Your task to perform on an android device: Show me some nice wallpapers for my computer Image 0: 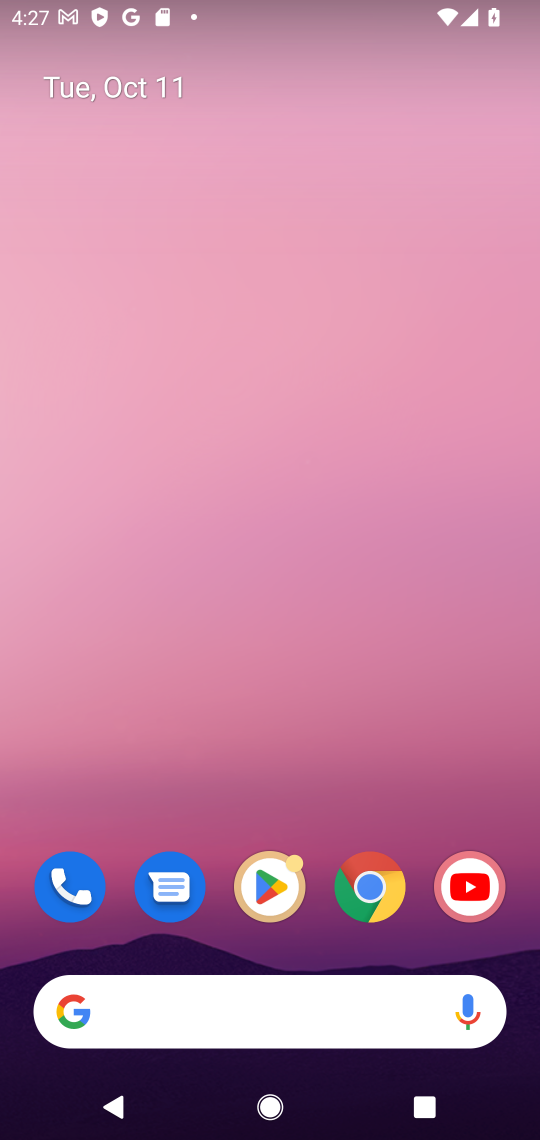
Step 0: click (285, 1007)
Your task to perform on an android device: Show me some nice wallpapers for my computer Image 1: 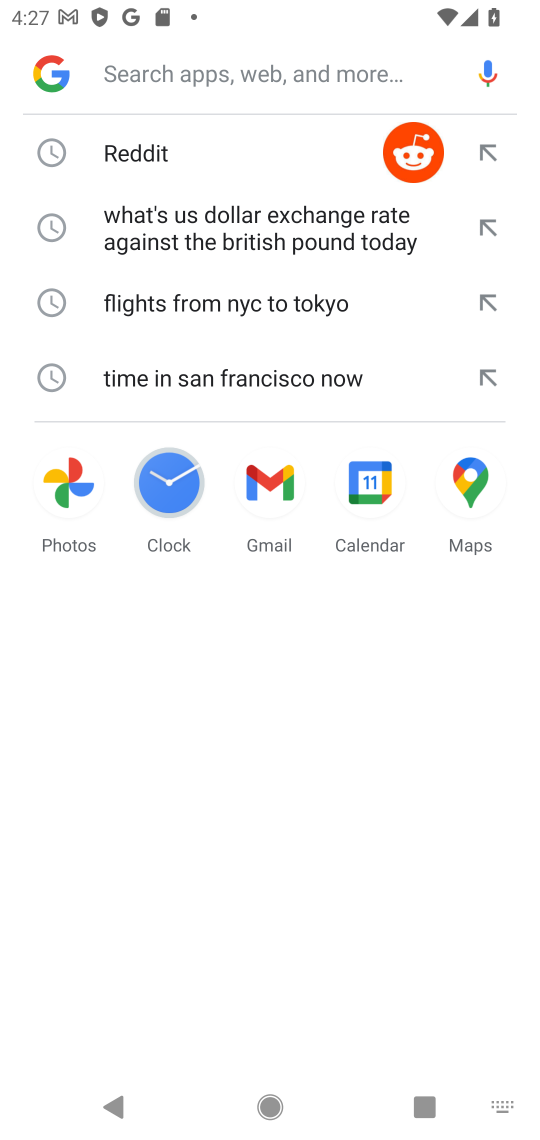
Step 1: type "some nice wallpapers for my computer"
Your task to perform on an android device: Show me some nice wallpapers for my computer Image 2: 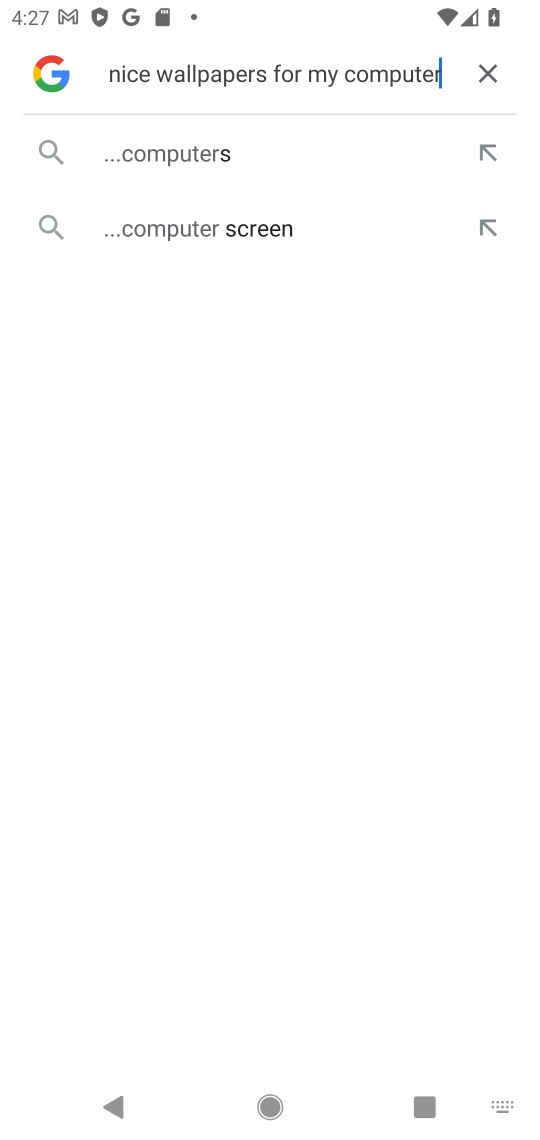
Step 2: press enter
Your task to perform on an android device: Show me some nice wallpapers for my computer Image 3: 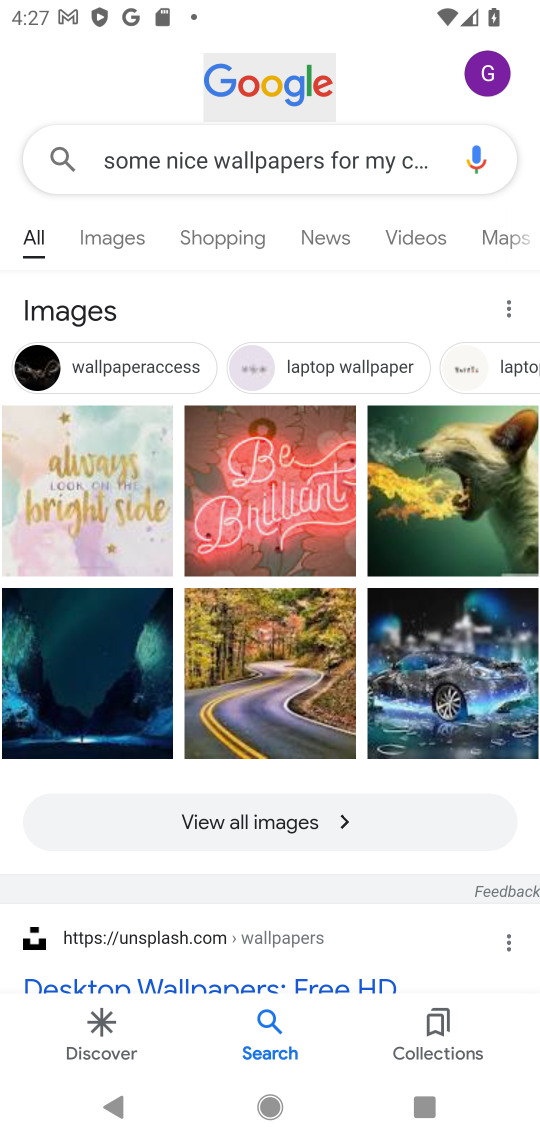
Step 3: click (302, 814)
Your task to perform on an android device: Show me some nice wallpapers for my computer Image 4: 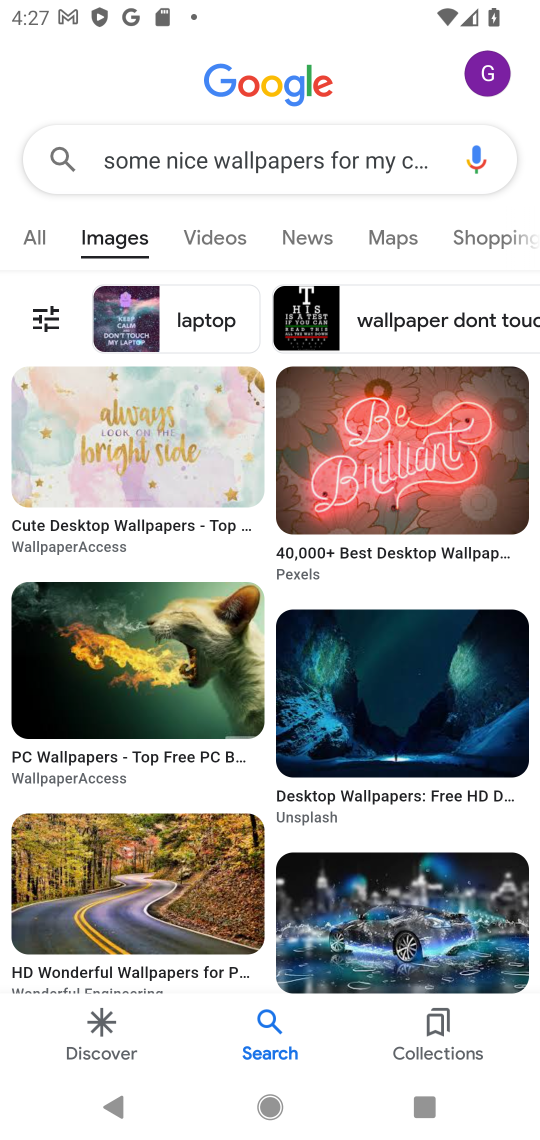
Step 4: drag from (270, 798) to (258, 328)
Your task to perform on an android device: Show me some nice wallpapers for my computer Image 5: 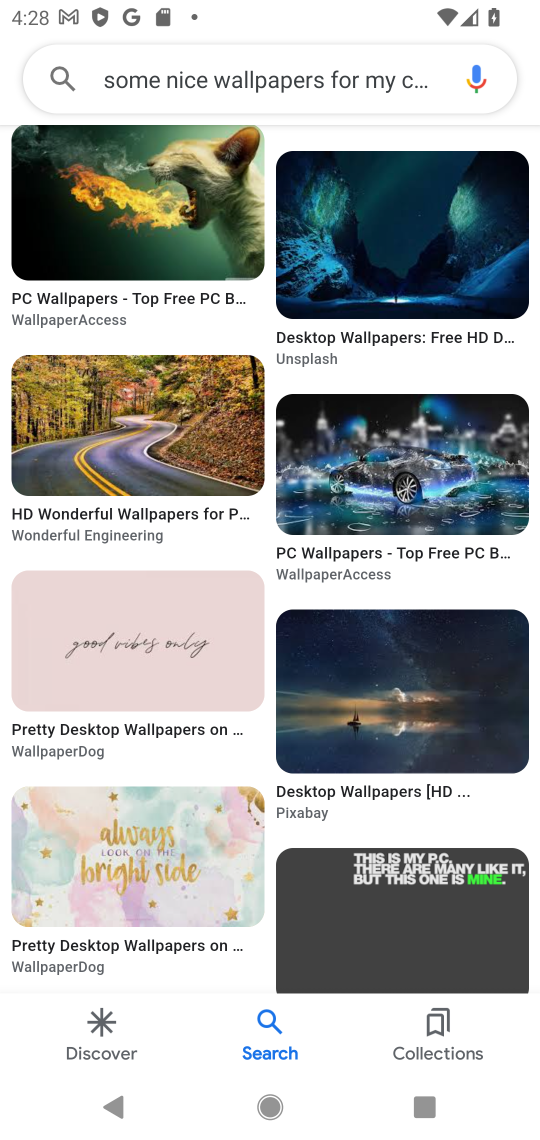
Step 5: drag from (273, 778) to (288, 339)
Your task to perform on an android device: Show me some nice wallpapers for my computer Image 6: 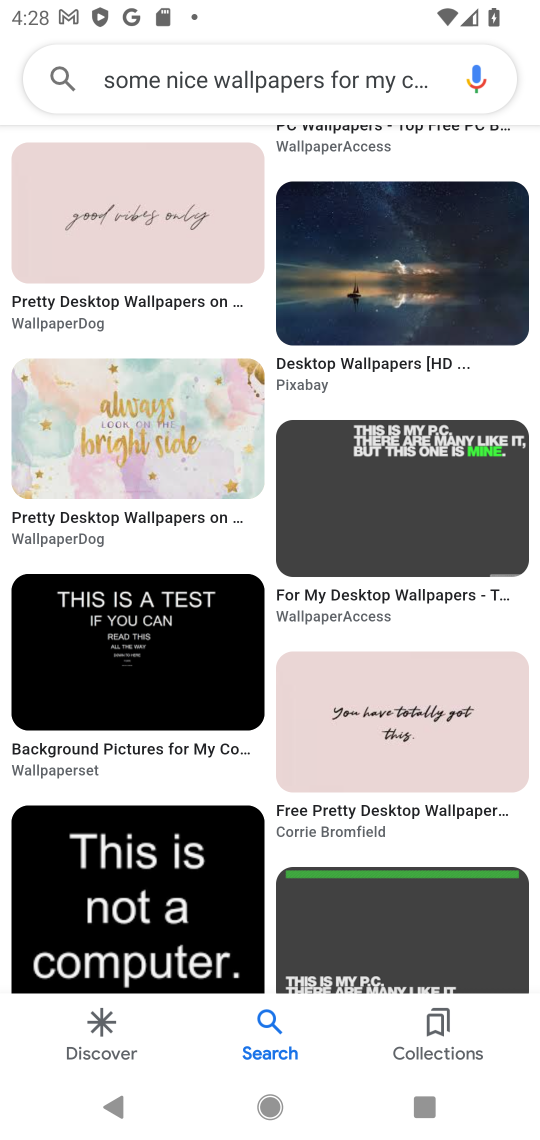
Step 6: drag from (281, 563) to (283, 784)
Your task to perform on an android device: Show me some nice wallpapers for my computer Image 7: 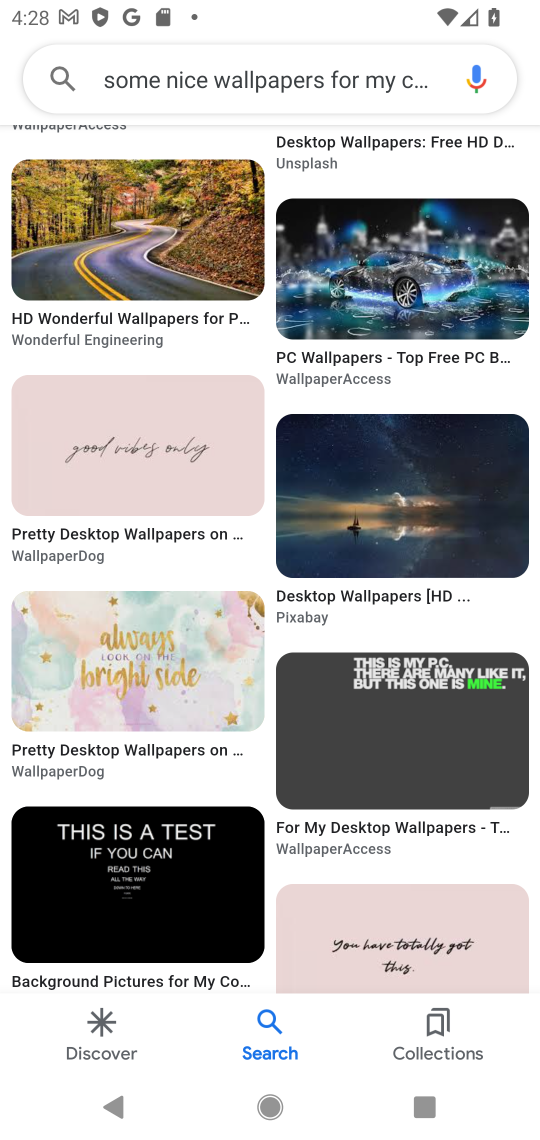
Step 7: drag from (260, 353) to (243, 867)
Your task to perform on an android device: Show me some nice wallpapers for my computer Image 8: 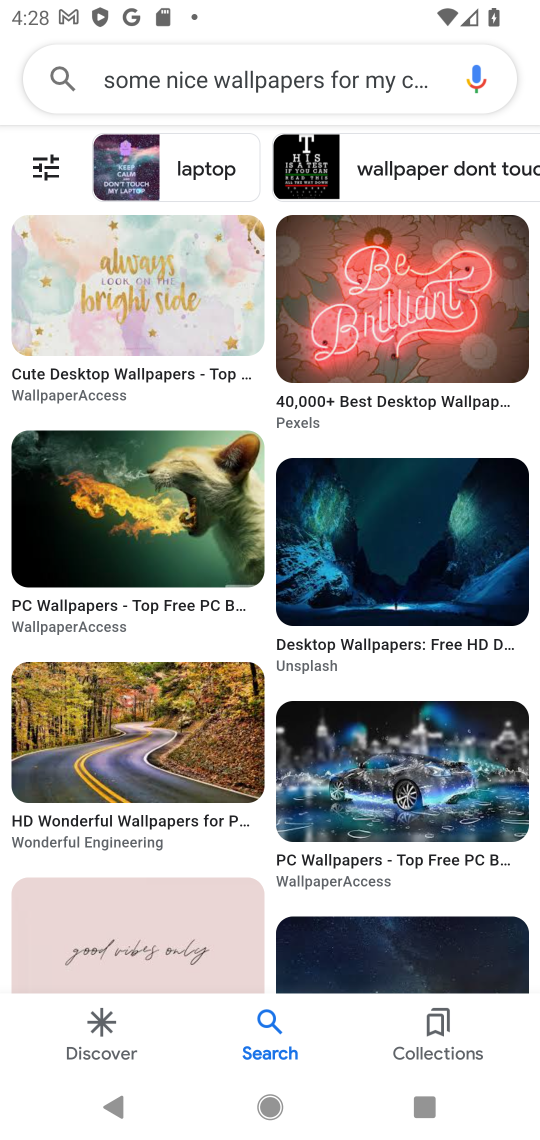
Step 8: drag from (259, 474) to (361, 1127)
Your task to perform on an android device: Show me some nice wallpapers for my computer Image 9: 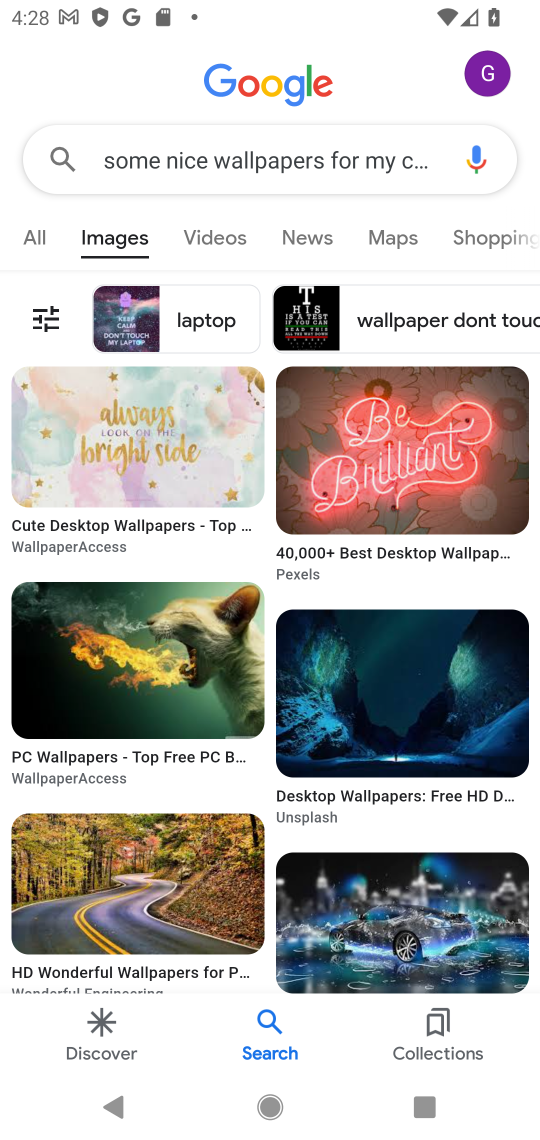
Step 9: click (36, 245)
Your task to perform on an android device: Show me some nice wallpapers for my computer Image 10: 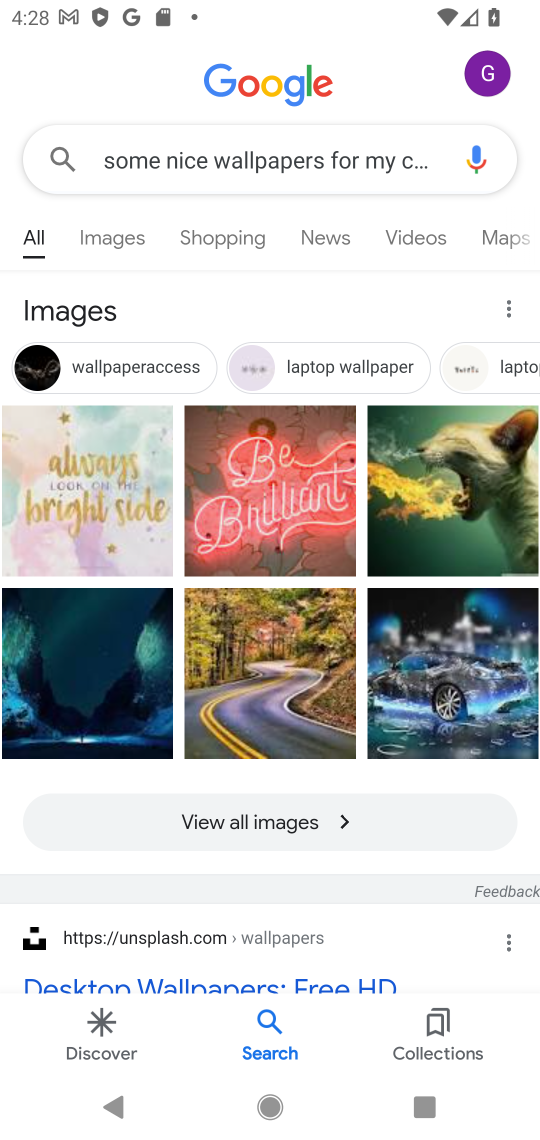
Step 10: drag from (295, 823) to (295, 627)
Your task to perform on an android device: Show me some nice wallpapers for my computer Image 11: 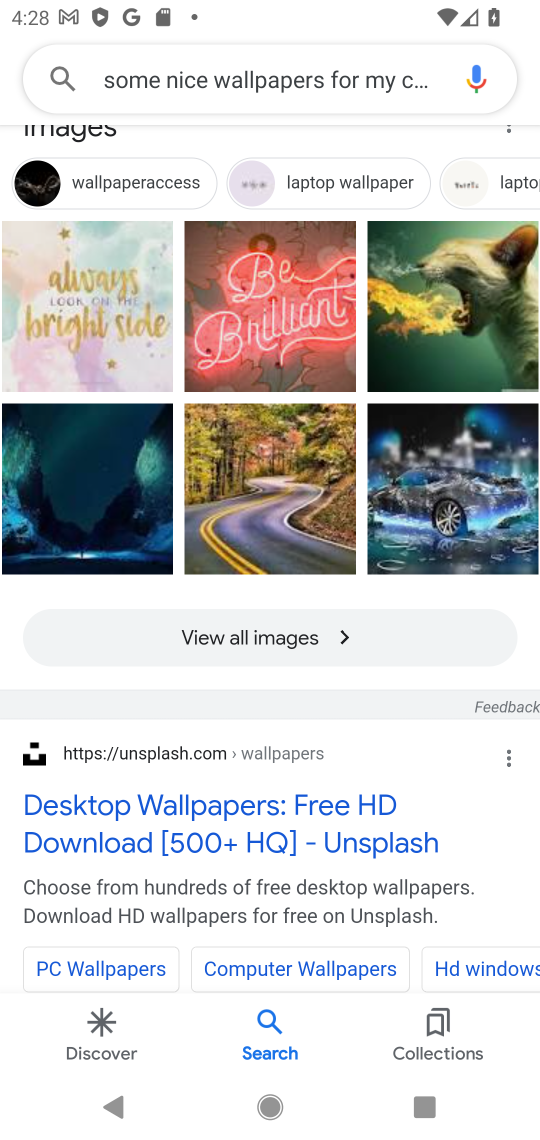
Step 11: click (180, 798)
Your task to perform on an android device: Show me some nice wallpapers for my computer Image 12: 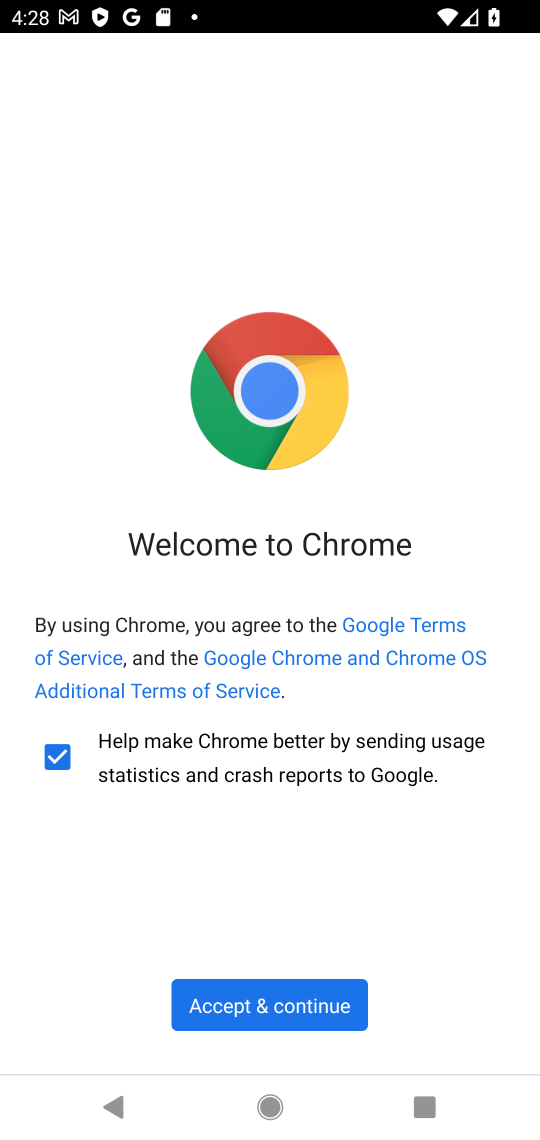
Step 12: click (283, 1016)
Your task to perform on an android device: Show me some nice wallpapers for my computer Image 13: 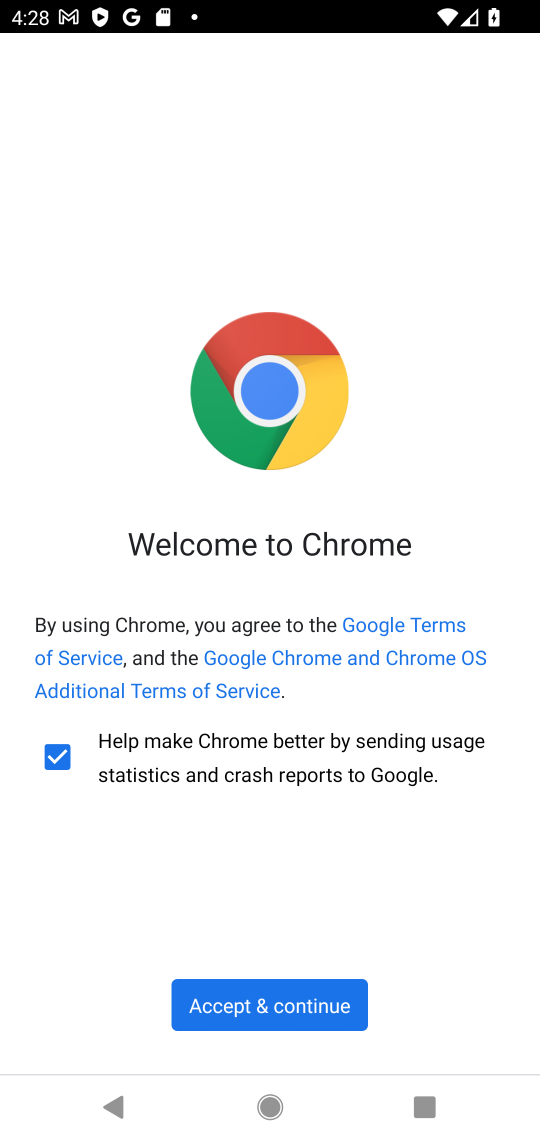
Step 13: click (283, 1016)
Your task to perform on an android device: Show me some nice wallpapers for my computer Image 14: 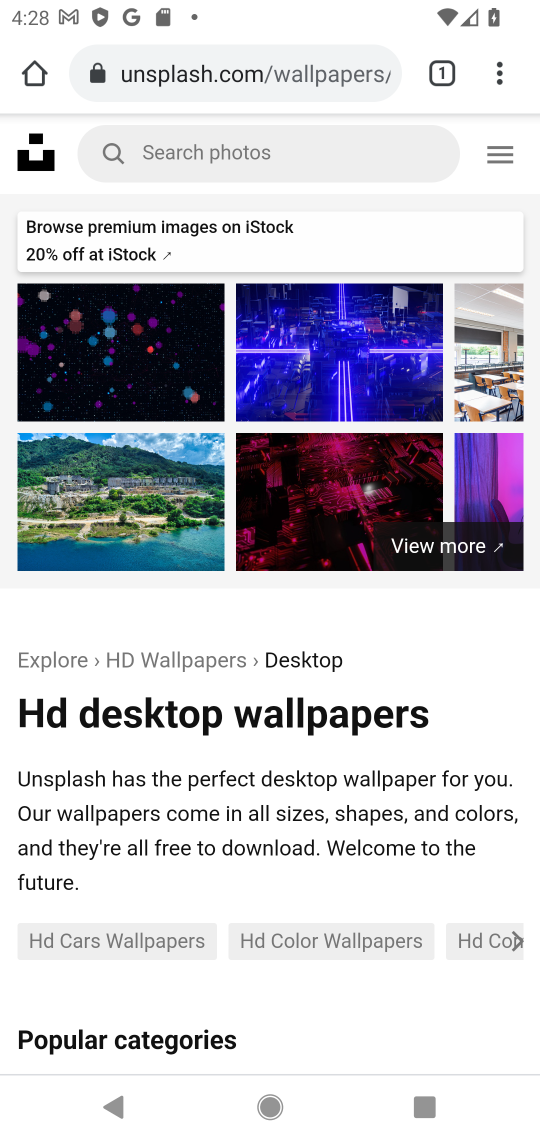
Step 14: drag from (285, 780) to (261, 361)
Your task to perform on an android device: Show me some nice wallpapers for my computer Image 15: 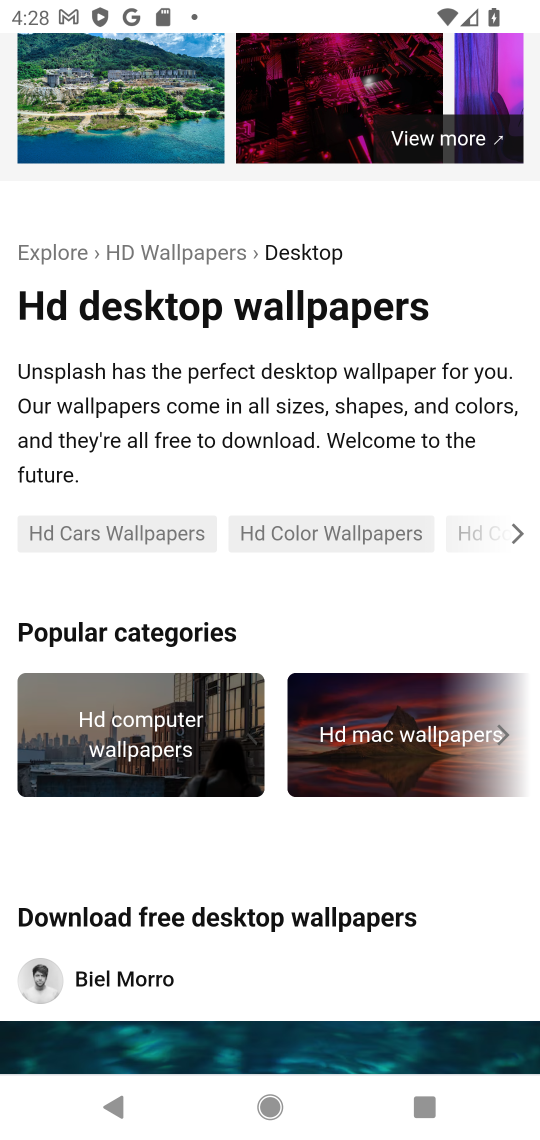
Step 15: drag from (257, 793) to (251, 353)
Your task to perform on an android device: Show me some nice wallpapers for my computer Image 16: 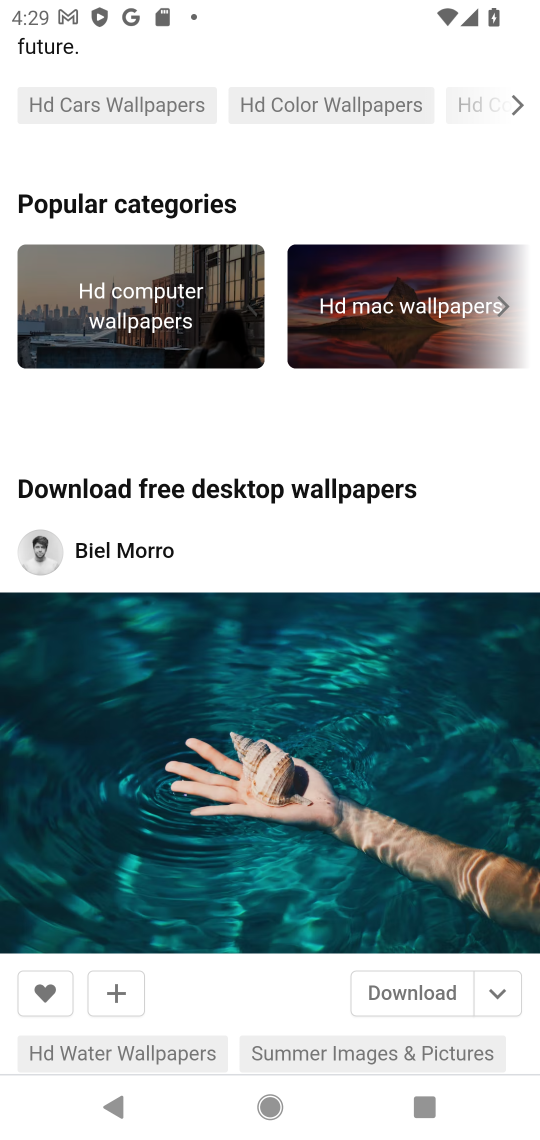
Step 16: drag from (300, 808) to (234, 361)
Your task to perform on an android device: Show me some nice wallpapers for my computer Image 17: 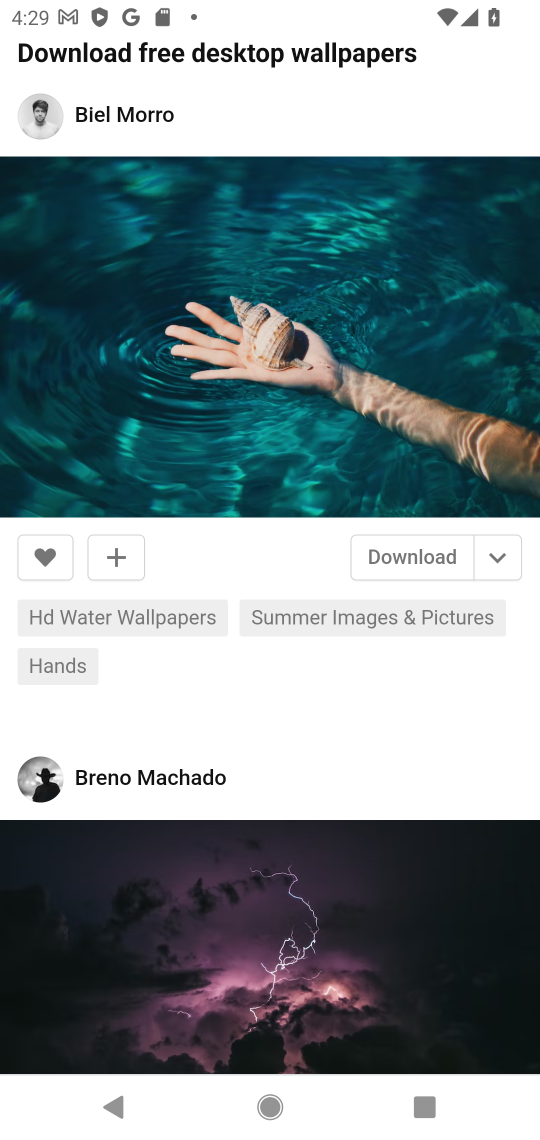
Step 17: drag from (267, 859) to (252, 452)
Your task to perform on an android device: Show me some nice wallpapers for my computer Image 18: 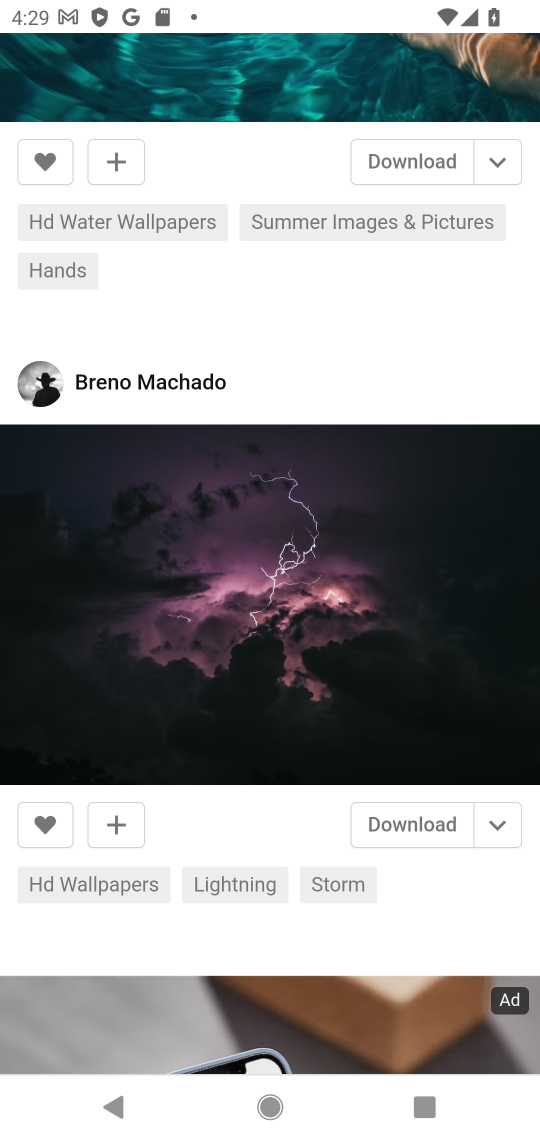
Step 18: drag from (280, 973) to (293, 531)
Your task to perform on an android device: Show me some nice wallpapers for my computer Image 19: 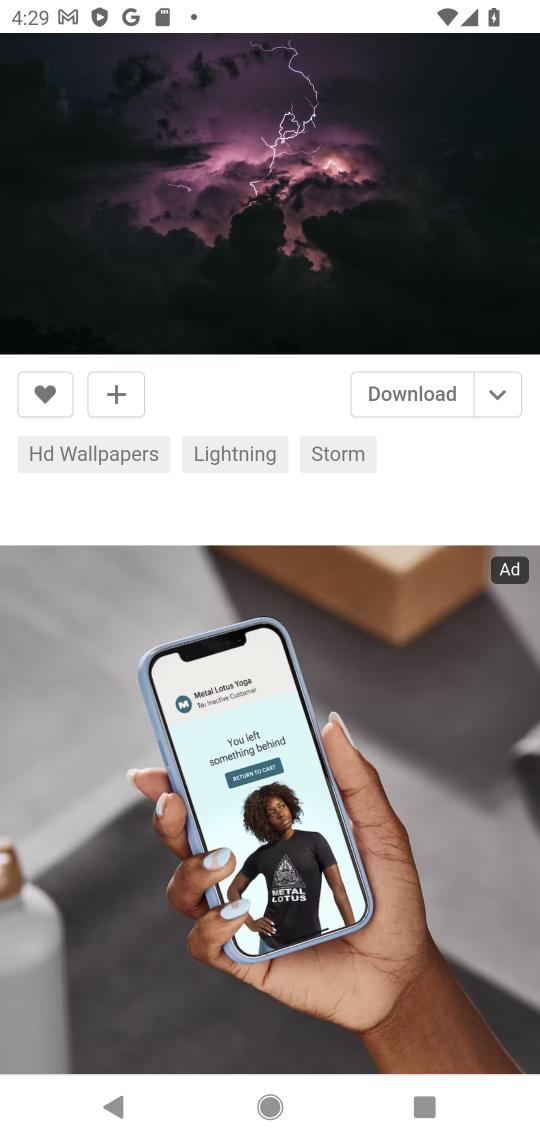
Step 19: drag from (251, 725) to (255, 547)
Your task to perform on an android device: Show me some nice wallpapers for my computer Image 20: 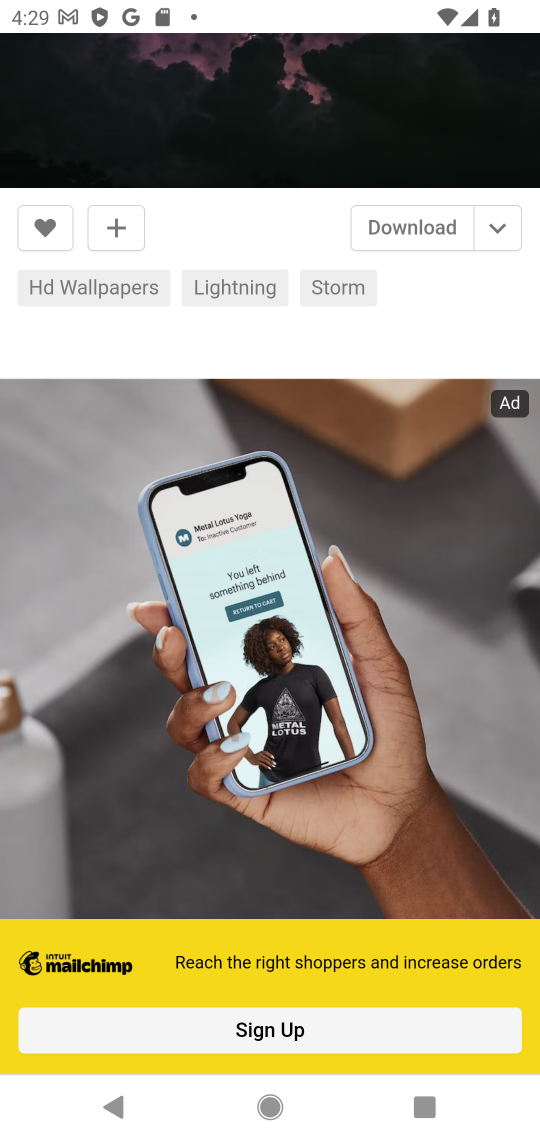
Step 20: drag from (256, 482) to (256, 414)
Your task to perform on an android device: Show me some nice wallpapers for my computer Image 21: 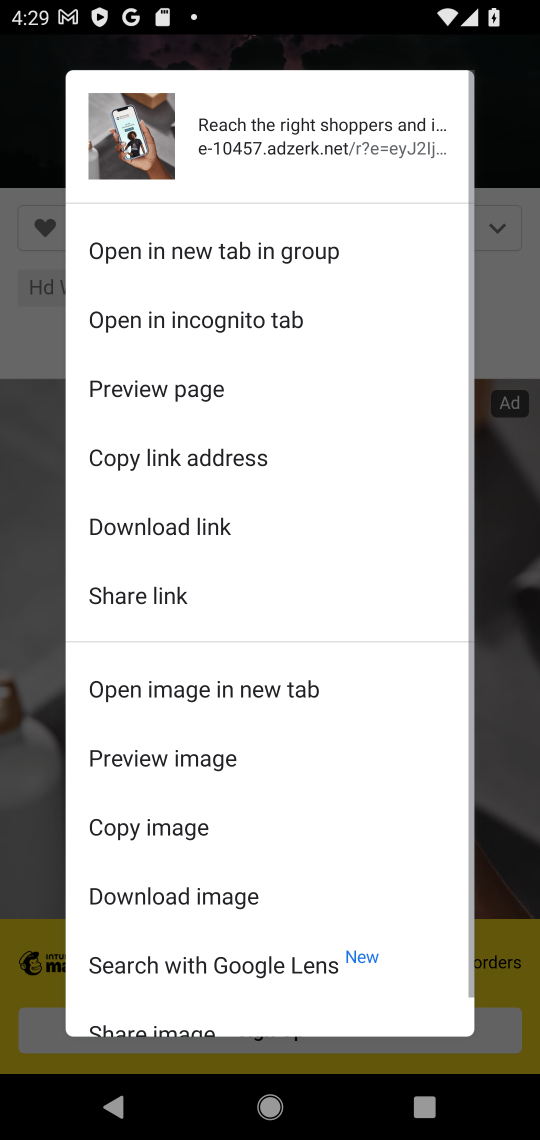
Step 21: click (507, 351)
Your task to perform on an android device: Show me some nice wallpapers for my computer Image 22: 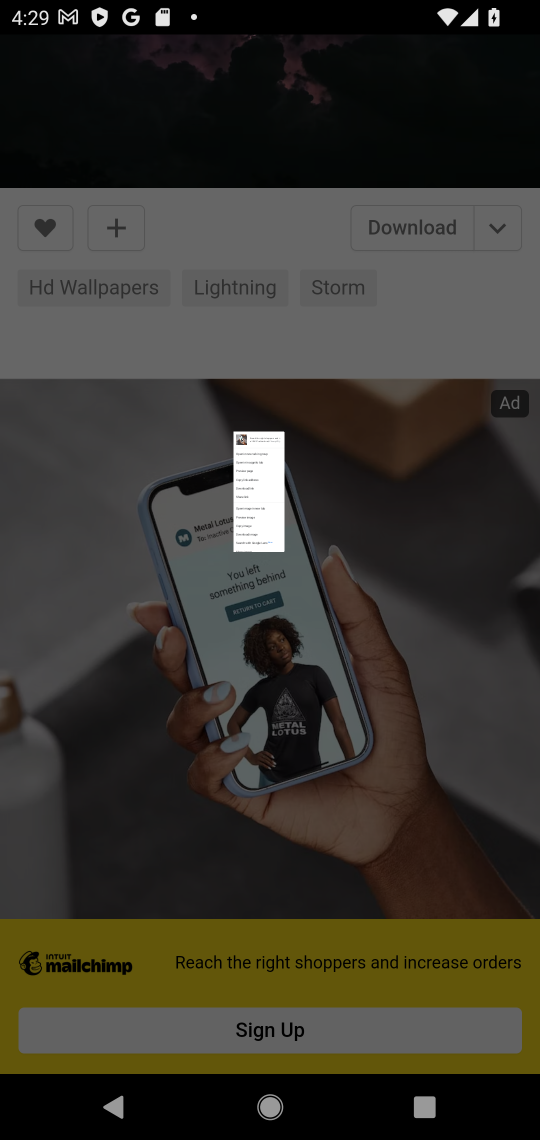
Step 22: click (507, 351)
Your task to perform on an android device: Show me some nice wallpapers for my computer Image 23: 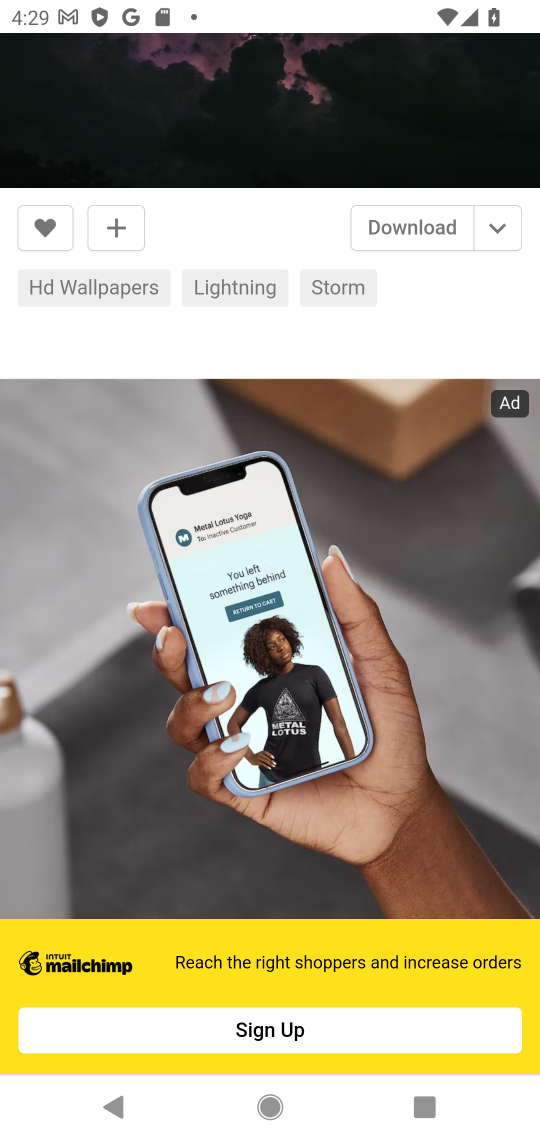
Step 23: task complete